Your task to perform on an android device: delete location history Image 0: 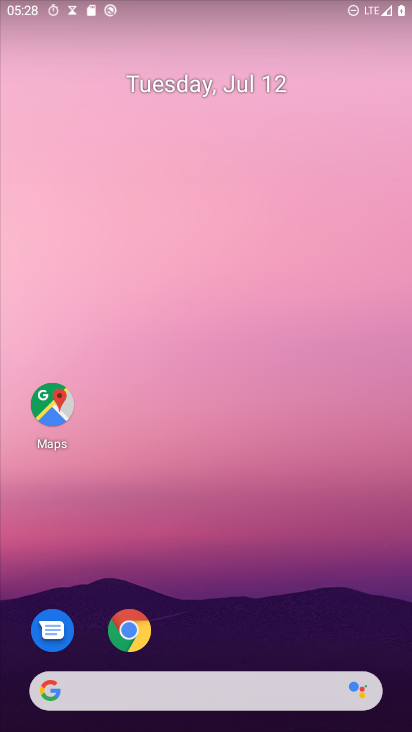
Step 0: drag from (298, 691) to (357, 10)
Your task to perform on an android device: delete location history Image 1: 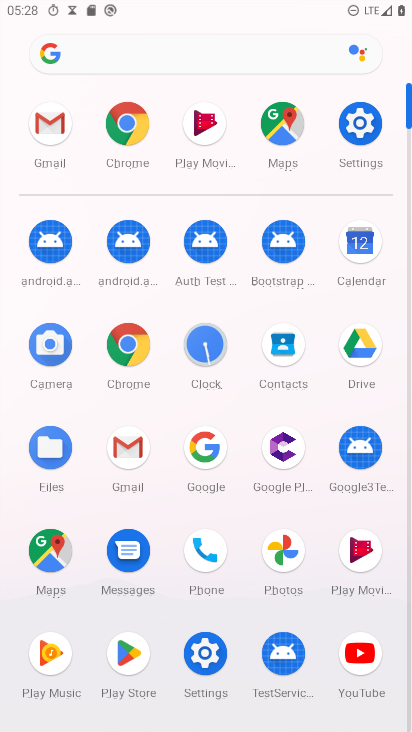
Step 1: click (48, 548)
Your task to perform on an android device: delete location history Image 2: 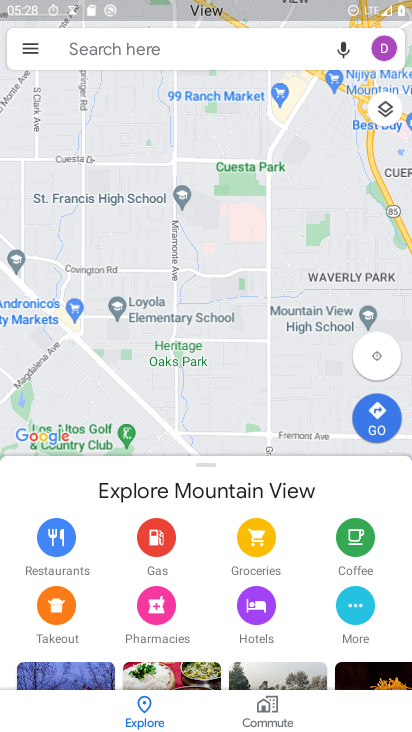
Step 2: click (30, 39)
Your task to perform on an android device: delete location history Image 3: 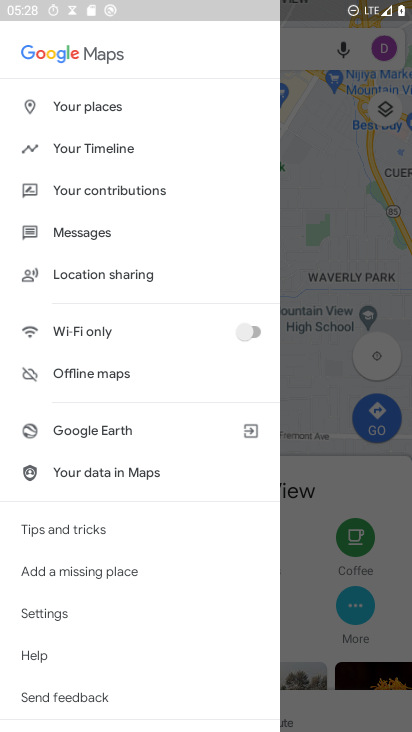
Step 3: click (106, 147)
Your task to perform on an android device: delete location history Image 4: 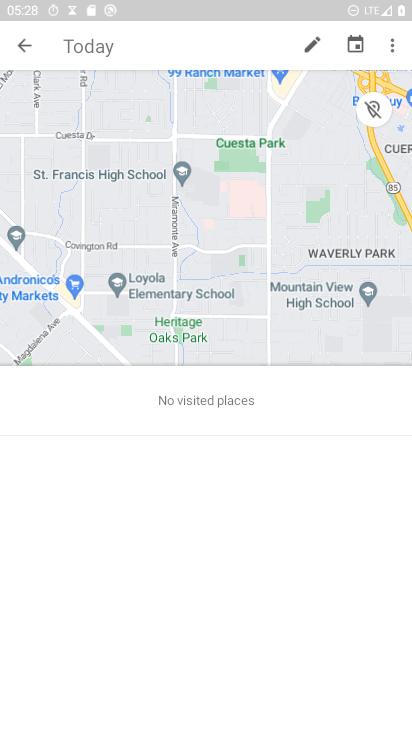
Step 4: click (392, 45)
Your task to perform on an android device: delete location history Image 5: 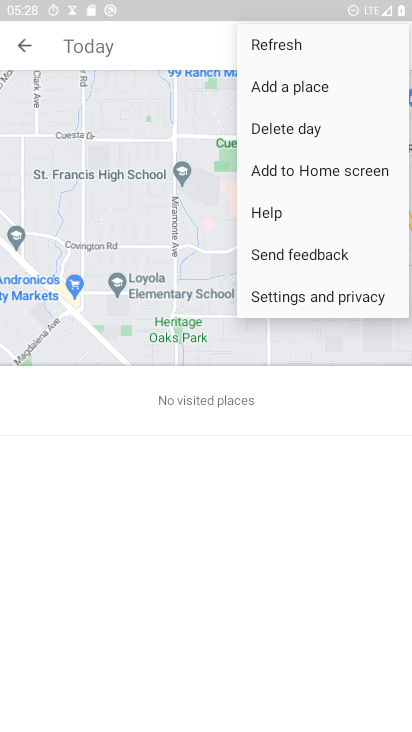
Step 5: click (278, 296)
Your task to perform on an android device: delete location history Image 6: 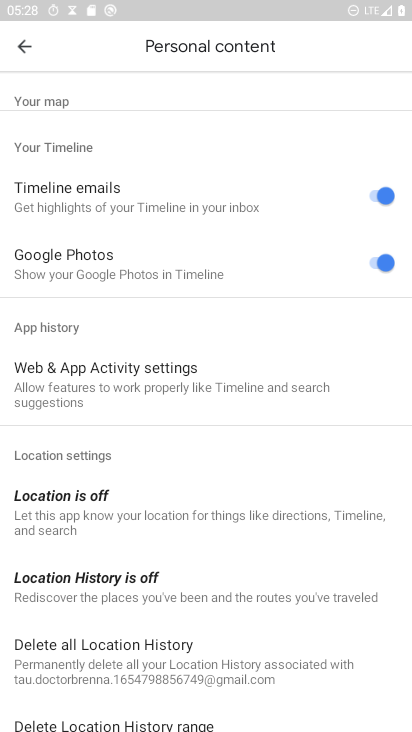
Step 6: click (149, 643)
Your task to perform on an android device: delete location history Image 7: 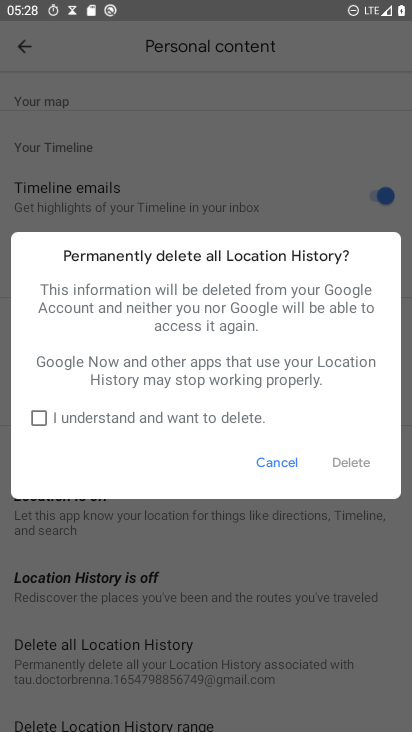
Step 7: click (43, 420)
Your task to perform on an android device: delete location history Image 8: 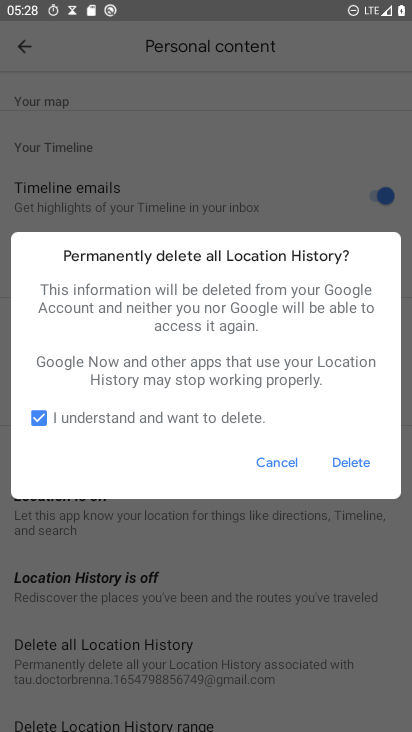
Step 8: click (346, 461)
Your task to perform on an android device: delete location history Image 9: 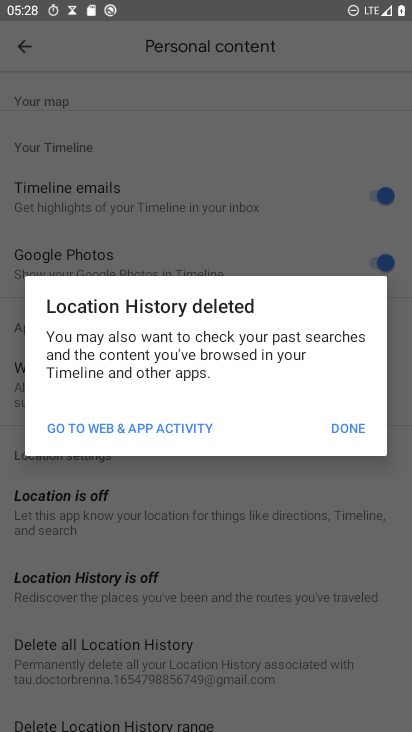
Step 9: click (342, 432)
Your task to perform on an android device: delete location history Image 10: 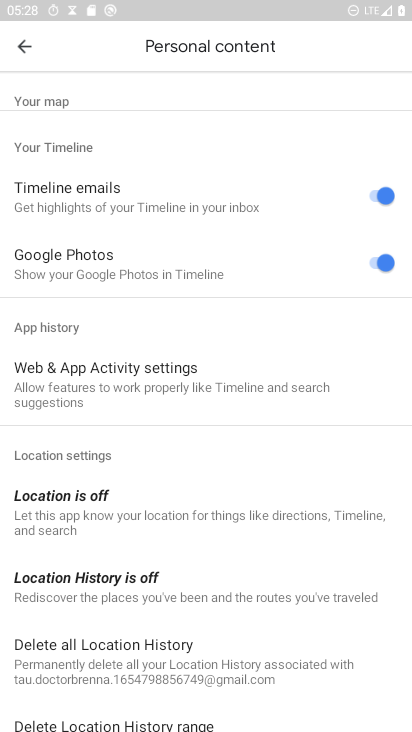
Step 10: task complete